Your task to perform on an android device: Go to battery settings Image 0: 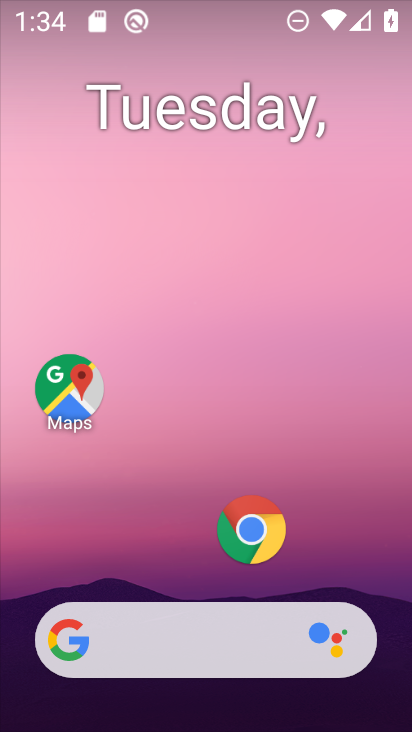
Step 0: drag from (267, 694) to (334, 110)
Your task to perform on an android device: Go to battery settings Image 1: 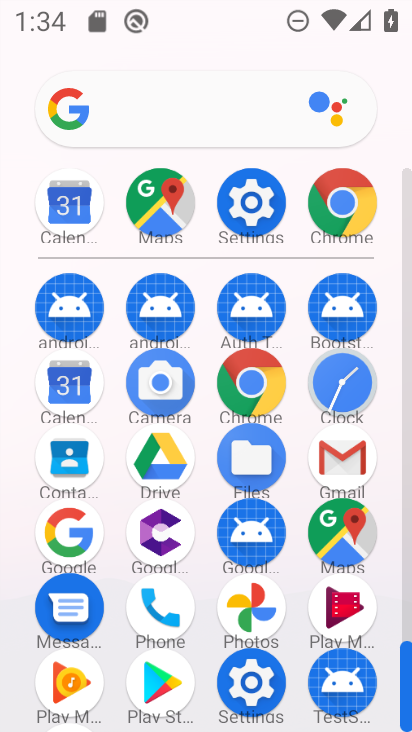
Step 1: click (241, 190)
Your task to perform on an android device: Go to battery settings Image 2: 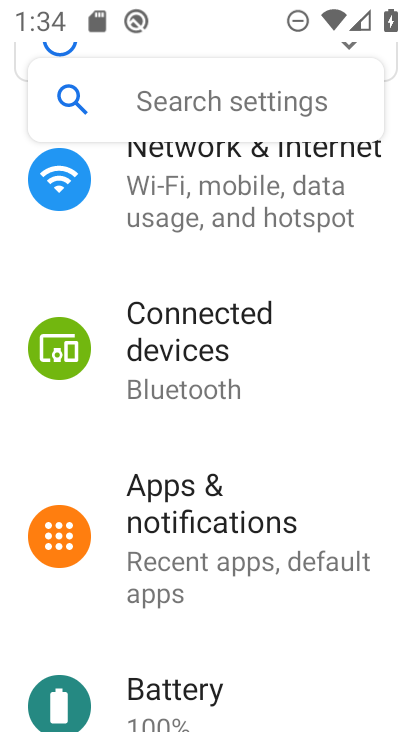
Step 2: click (154, 679)
Your task to perform on an android device: Go to battery settings Image 3: 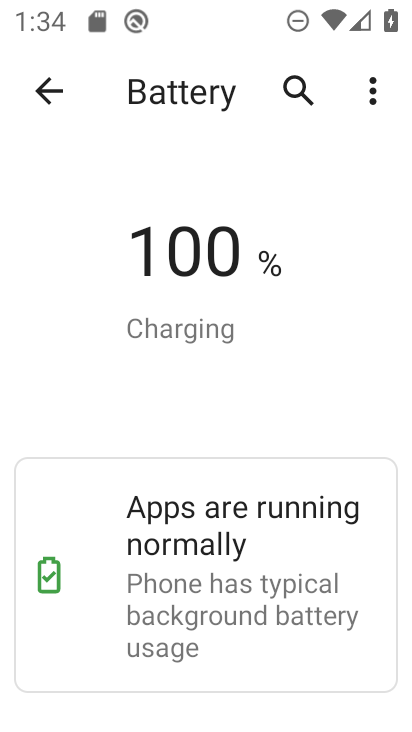
Step 3: task complete